Your task to perform on an android device: toggle wifi Image 0: 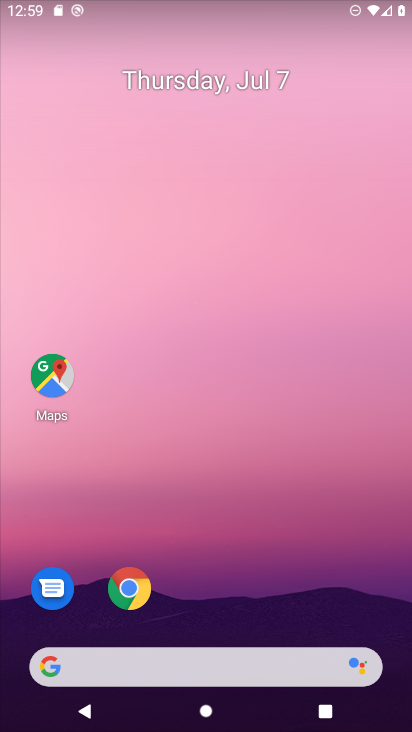
Step 0: drag from (245, 612) to (273, 40)
Your task to perform on an android device: toggle wifi Image 1: 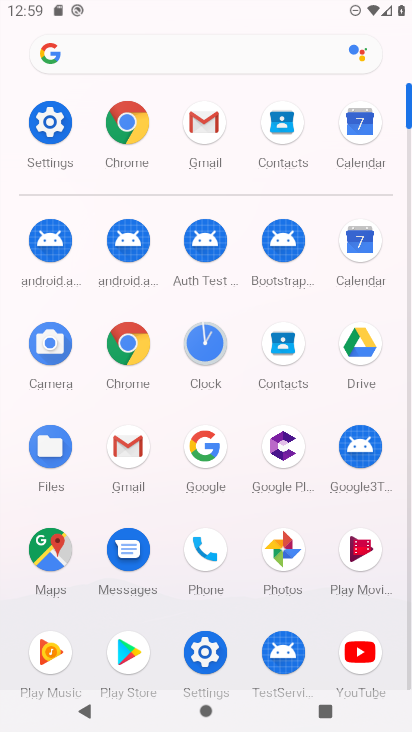
Step 1: click (63, 123)
Your task to perform on an android device: toggle wifi Image 2: 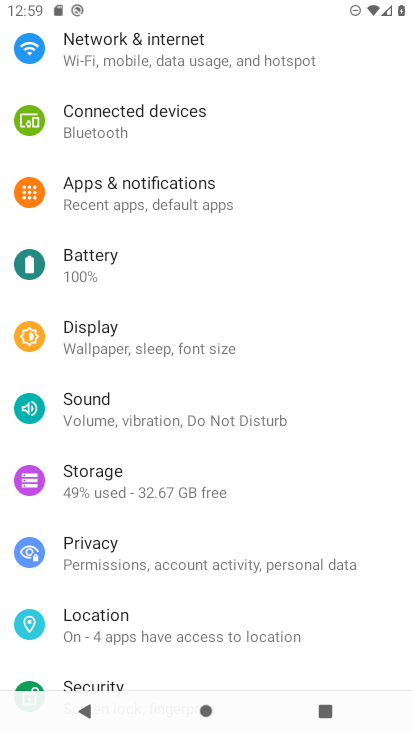
Step 2: drag from (147, 167) to (172, 635)
Your task to perform on an android device: toggle wifi Image 3: 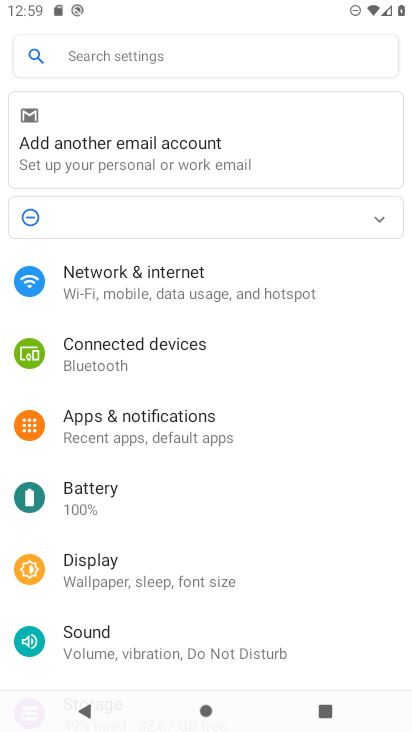
Step 3: click (171, 291)
Your task to perform on an android device: toggle wifi Image 4: 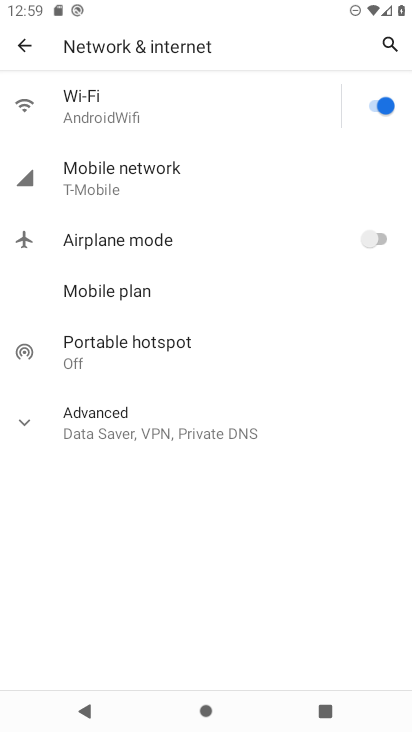
Step 4: click (370, 102)
Your task to perform on an android device: toggle wifi Image 5: 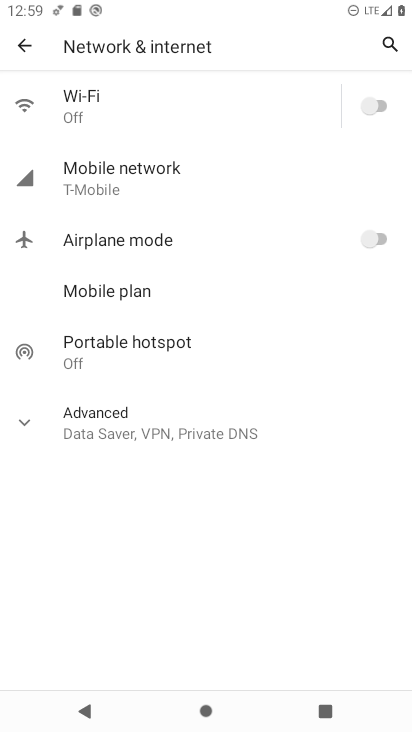
Step 5: task complete